Your task to perform on an android device: open wifi settings Image 0: 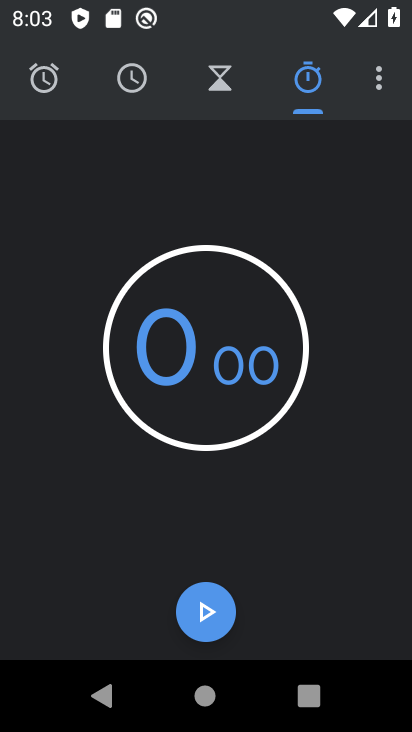
Step 0: press home button
Your task to perform on an android device: open wifi settings Image 1: 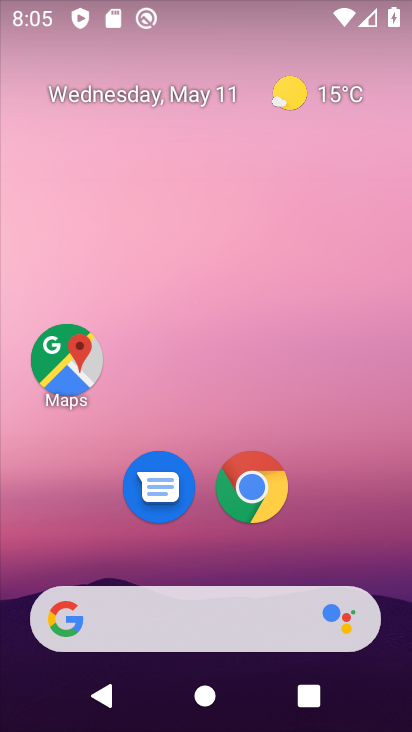
Step 1: drag from (324, 655) to (252, 202)
Your task to perform on an android device: open wifi settings Image 2: 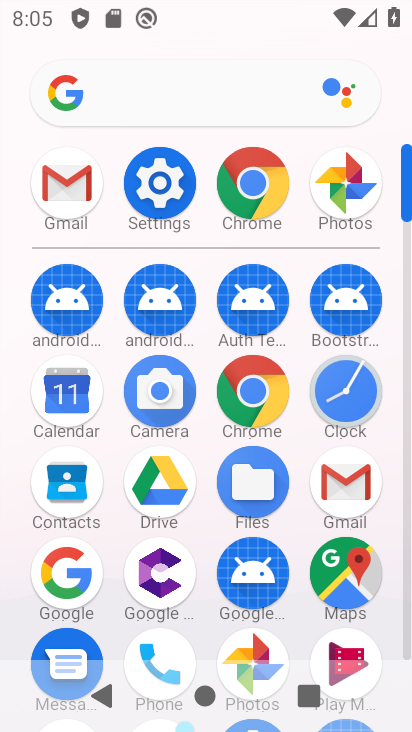
Step 2: click (165, 185)
Your task to perform on an android device: open wifi settings Image 3: 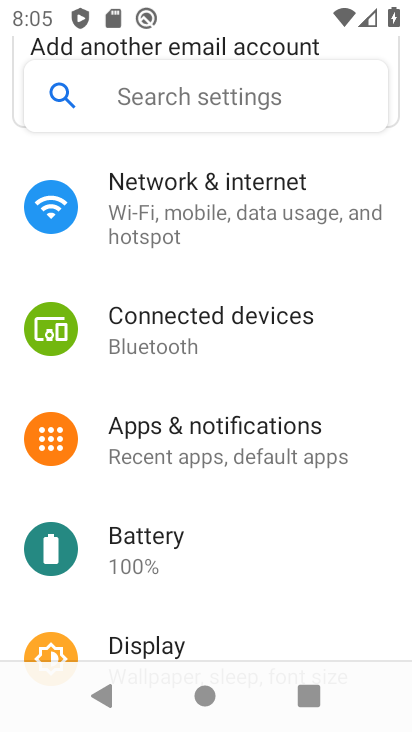
Step 3: click (217, 232)
Your task to perform on an android device: open wifi settings Image 4: 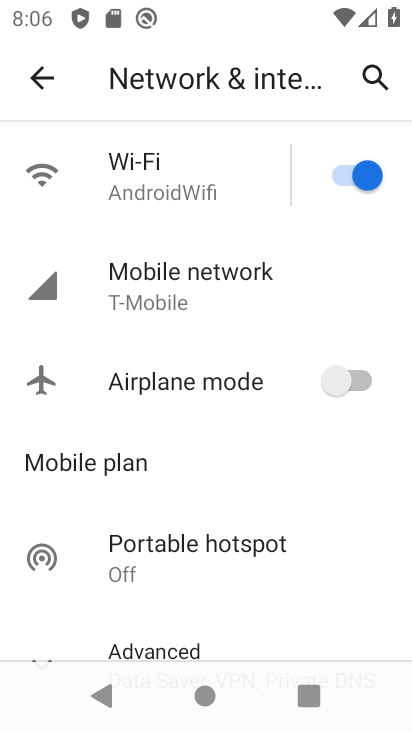
Step 4: click (139, 166)
Your task to perform on an android device: open wifi settings Image 5: 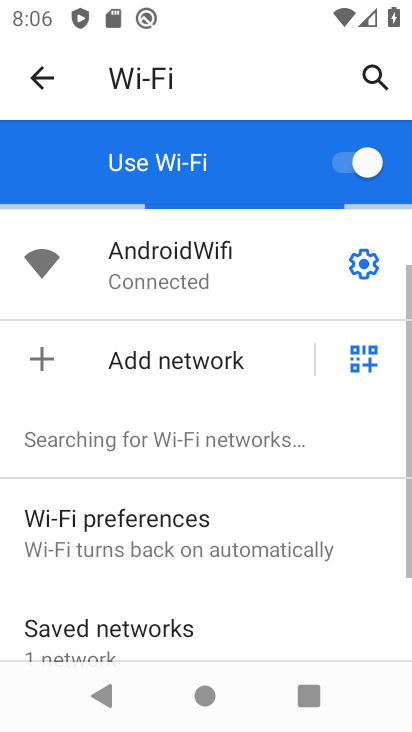
Step 5: task complete